Your task to perform on an android device: Open notification settings Image 0: 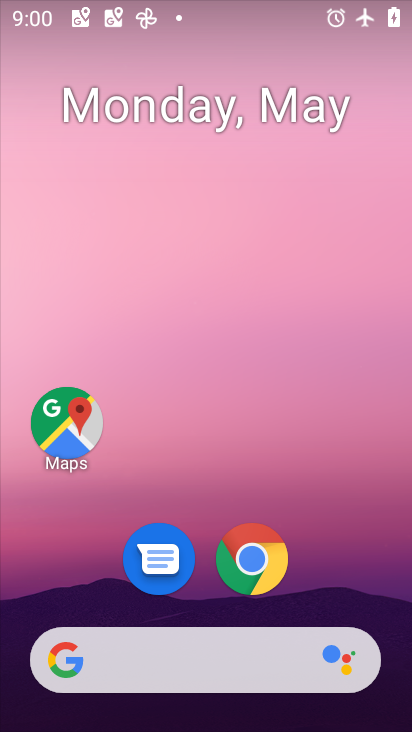
Step 0: drag from (396, 542) to (319, 17)
Your task to perform on an android device: Open notification settings Image 1: 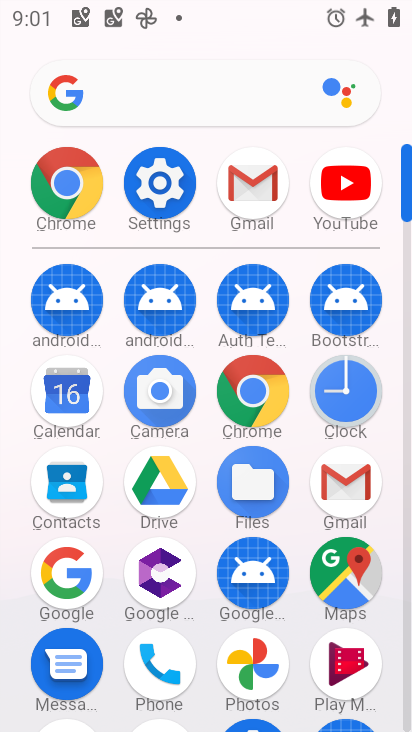
Step 1: click (168, 204)
Your task to perform on an android device: Open notification settings Image 2: 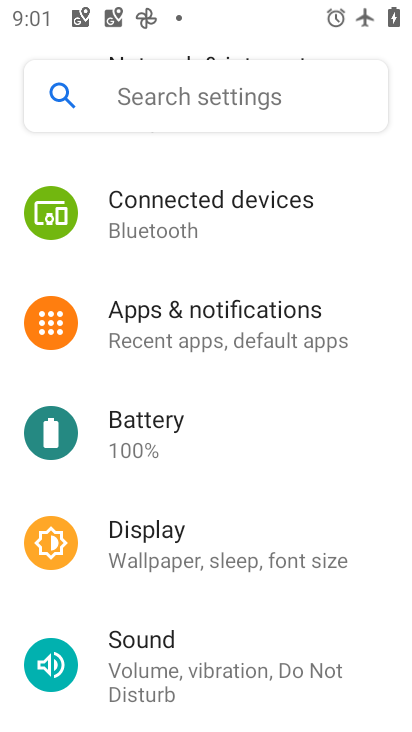
Step 2: click (249, 319)
Your task to perform on an android device: Open notification settings Image 3: 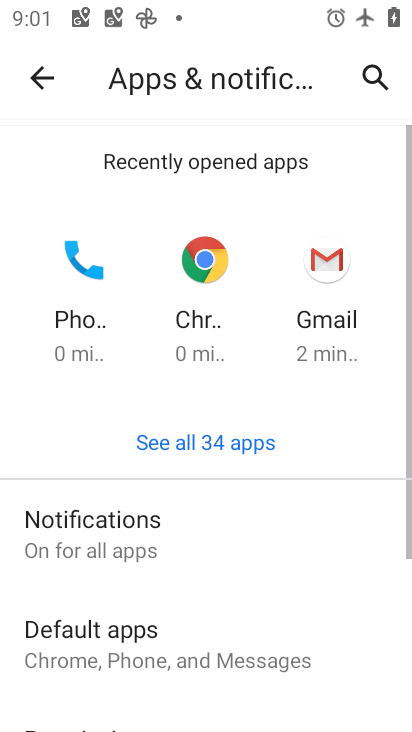
Step 3: click (104, 522)
Your task to perform on an android device: Open notification settings Image 4: 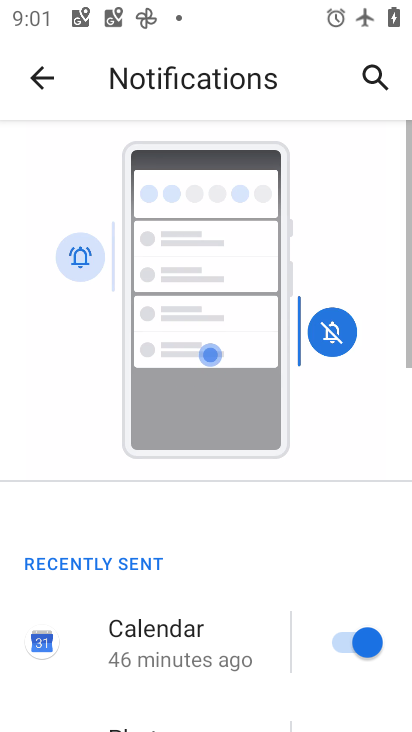
Step 4: task complete